Your task to perform on an android device: What's the weather today? Image 0: 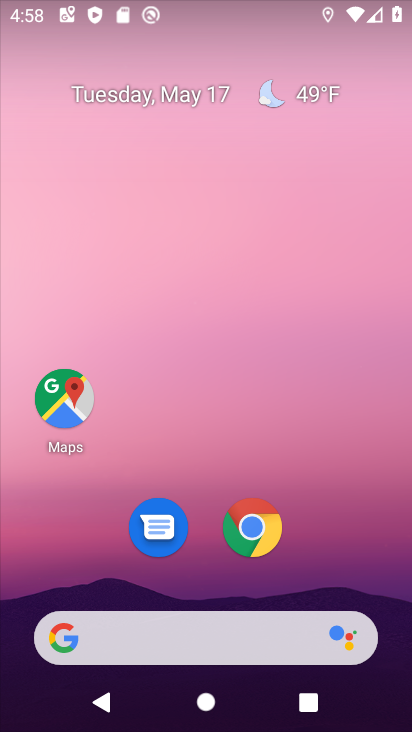
Step 0: drag from (315, 534) to (249, 7)
Your task to perform on an android device: What's the weather today? Image 1: 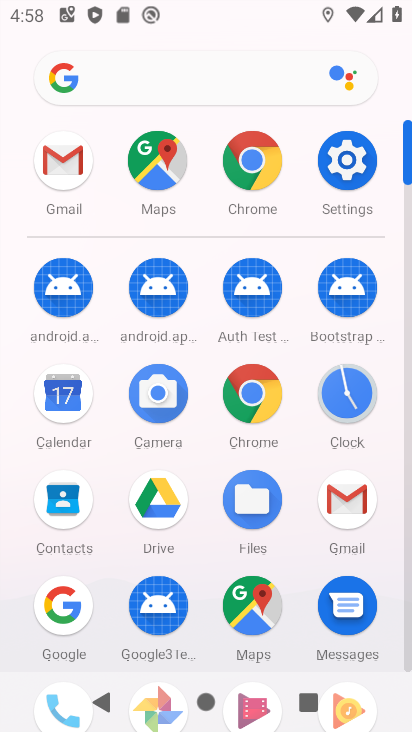
Step 1: drag from (30, 466) to (30, 204)
Your task to perform on an android device: What's the weather today? Image 2: 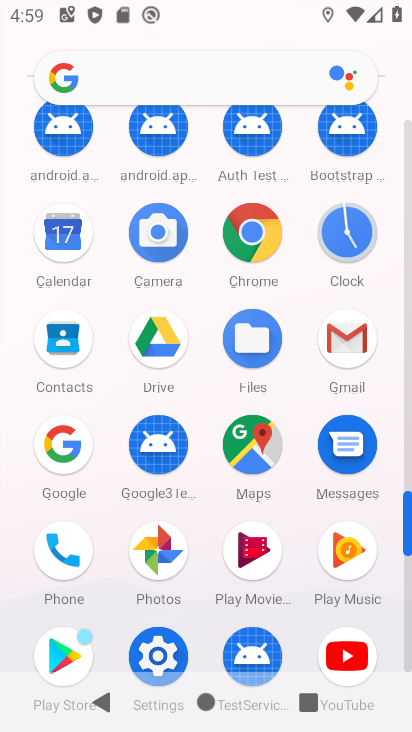
Step 2: click (253, 224)
Your task to perform on an android device: What's the weather today? Image 3: 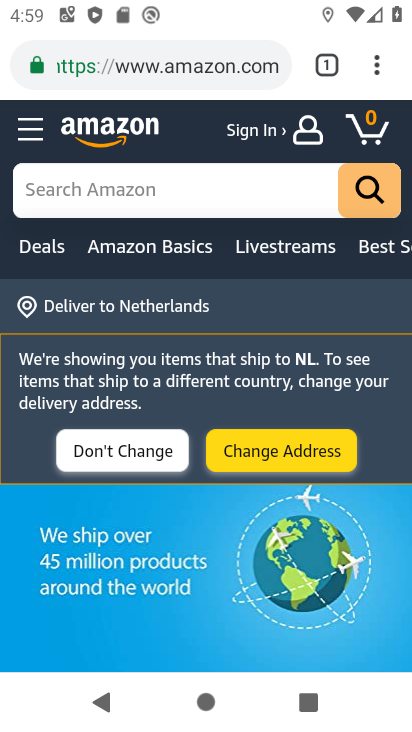
Step 3: click (217, 49)
Your task to perform on an android device: What's the weather today? Image 4: 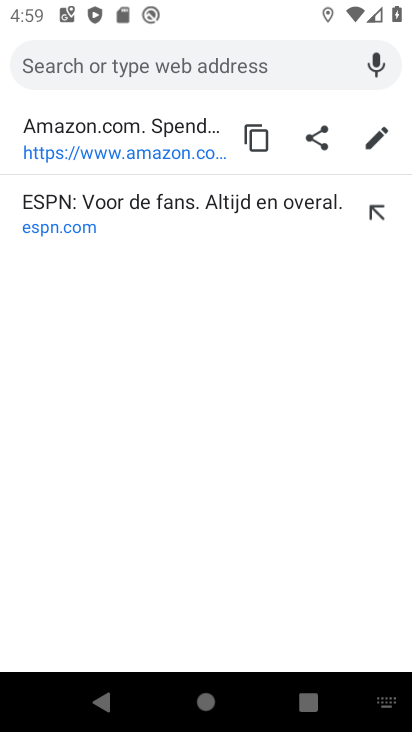
Step 4: click (52, 391)
Your task to perform on an android device: What's the weather today? Image 5: 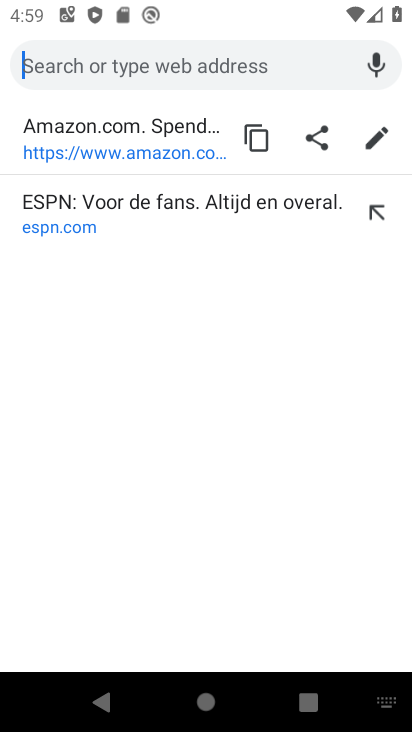
Step 5: type "What's the weather today?"
Your task to perform on an android device: What's the weather today? Image 6: 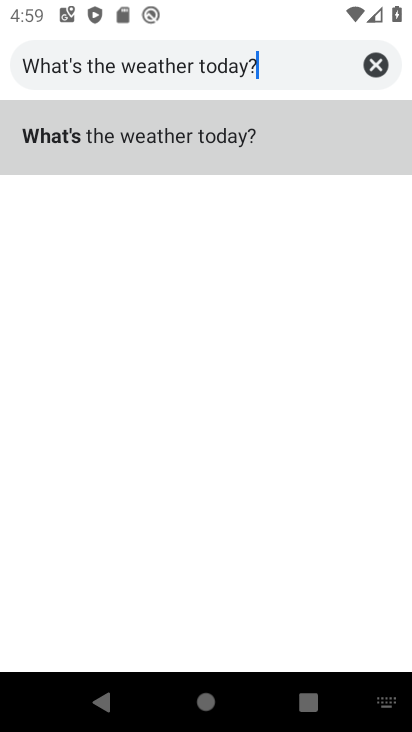
Step 6: type ""
Your task to perform on an android device: What's the weather today? Image 7: 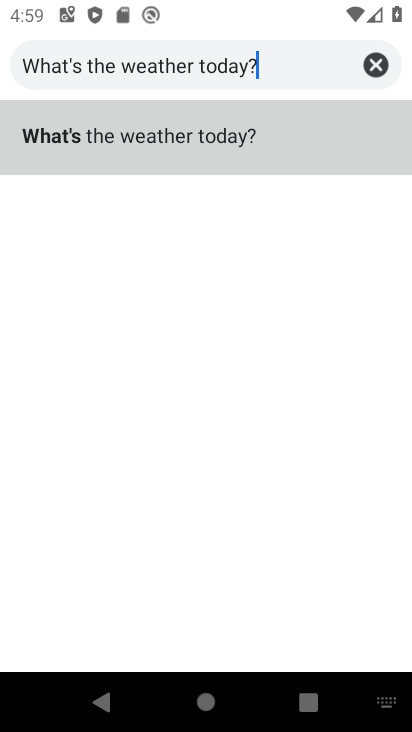
Step 7: click (210, 119)
Your task to perform on an android device: What's the weather today? Image 8: 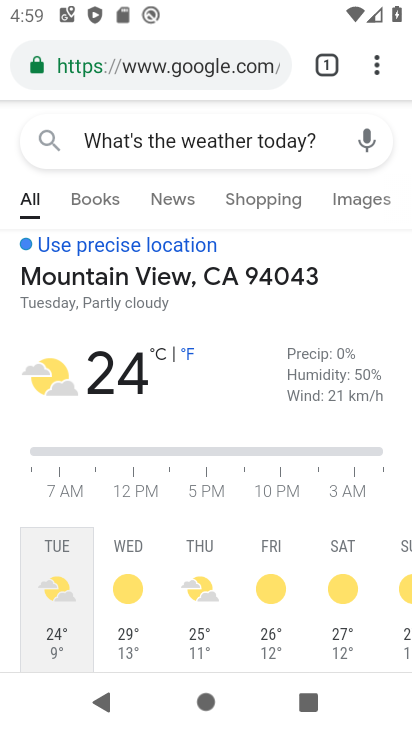
Step 8: task complete